Your task to perform on an android device: Open Youtube and go to "Your channel" Image 0: 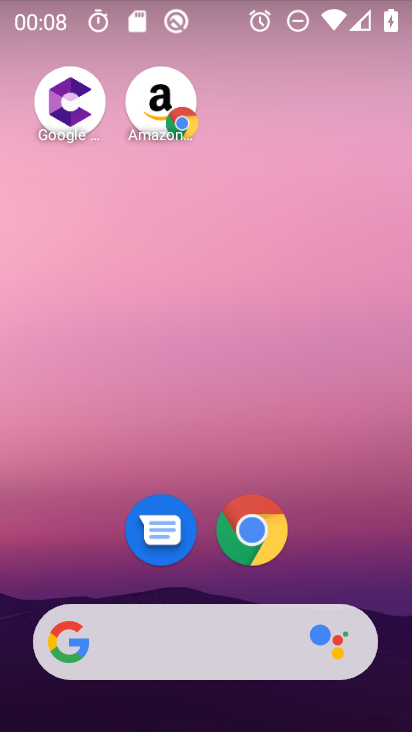
Step 0: drag from (300, 708) to (330, 152)
Your task to perform on an android device: Open Youtube and go to "Your channel" Image 1: 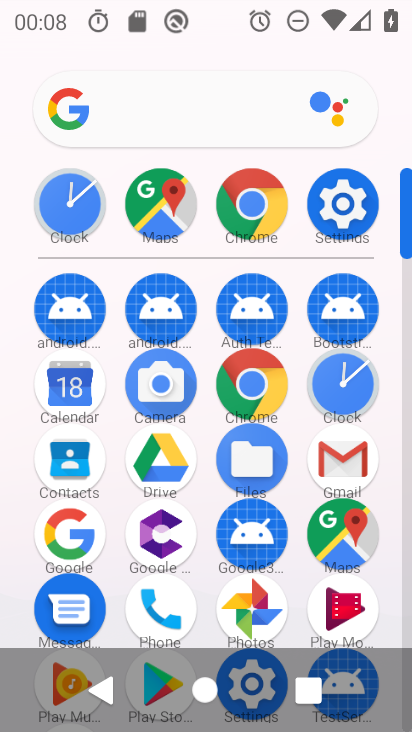
Step 1: drag from (285, 607) to (327, 141)
Your task to perform on an android device: Open Youtube and go to "Your channel" Image 2: 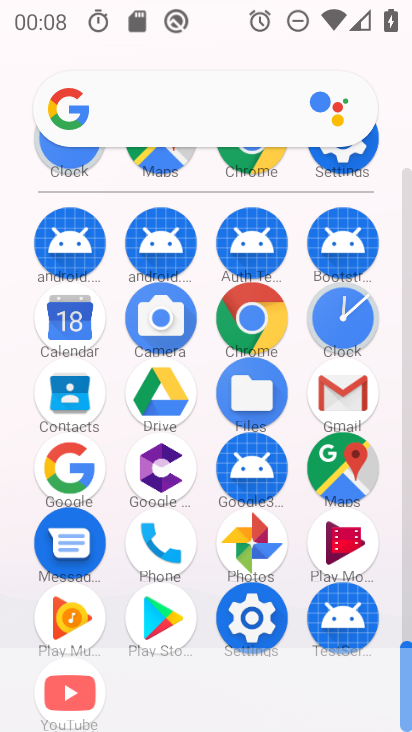
Step 2: click (76, 687)
Your task to perform on an android device: Open Youtube and go to "Your channel" Image 3: 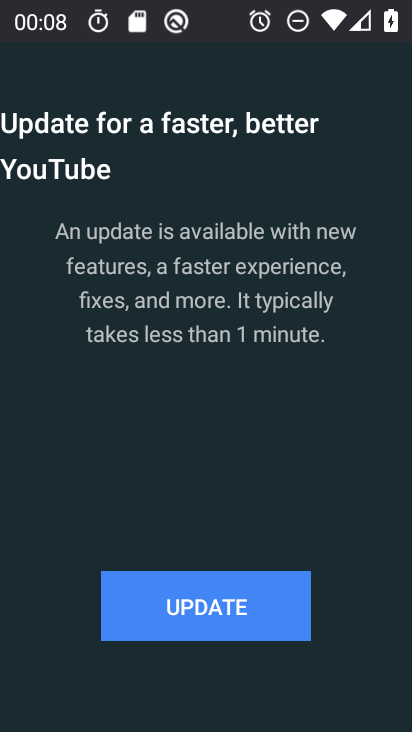
Step 3: click (202, 587)
Your task to perform on an android device: Open Youtube and go to "Your channel" Image 4: 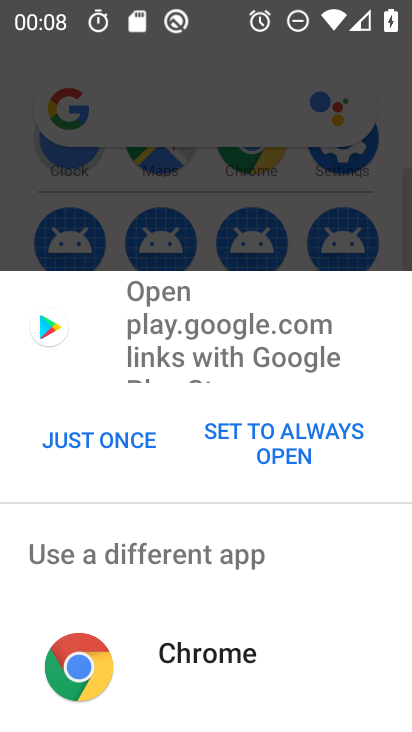
Step 4: click (125, 429)
Your task to perform on an android device: Open Youtube and go to "Your channel" Image 5: 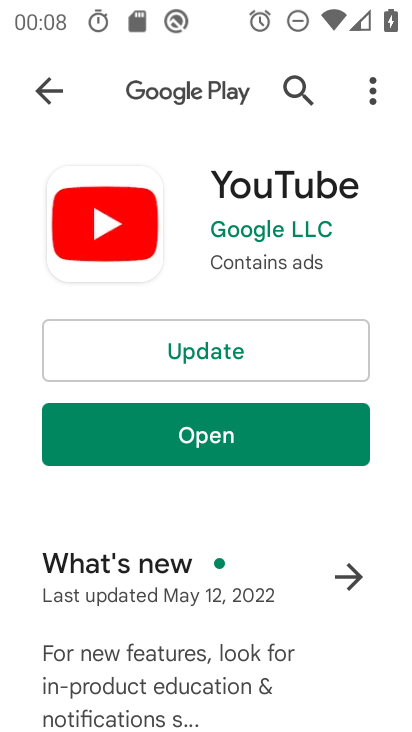
Step 5: click (246, 352)
Your task to perform on an android device: Open Youtube and go to "Your channel" Image 6: 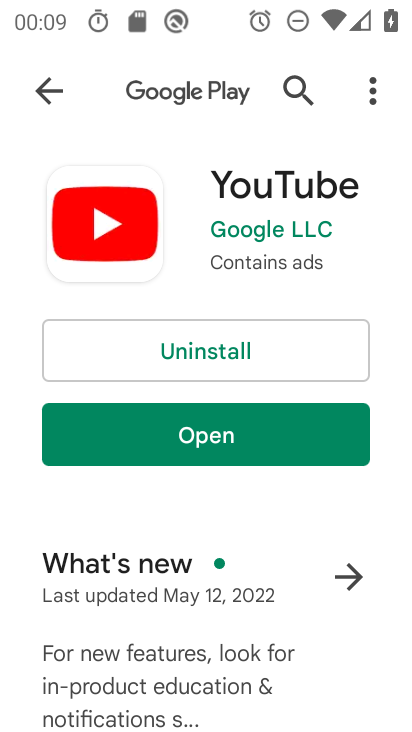
Step 6: click (218, 438)
Your task to perform on an android device: Open Youtube and go to "Your channel" Image 7: 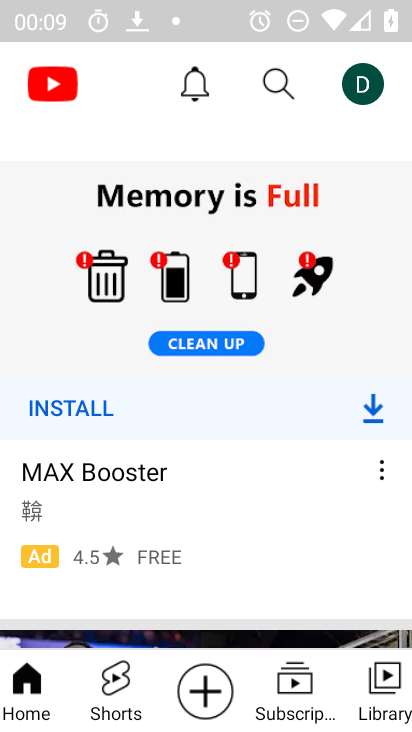
Step 7: click (378, 74)
Your task to perform on an android device: Open Youtube and go to "Your channel" Image 8: 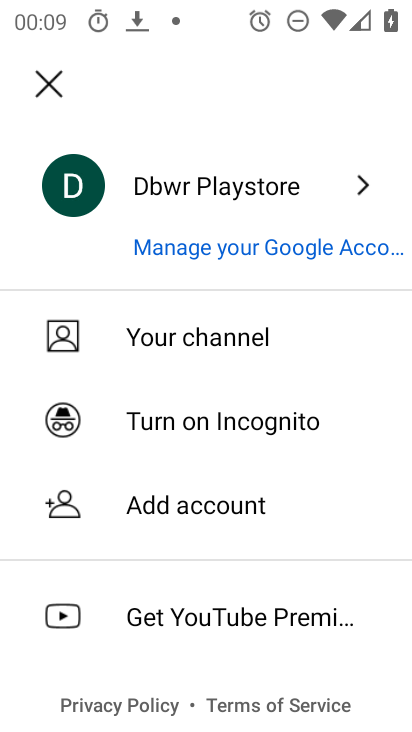
Step 8: click (276, 335)
Your task to perform on an android device: Open Youtube and go to "Your channel" Image 9: 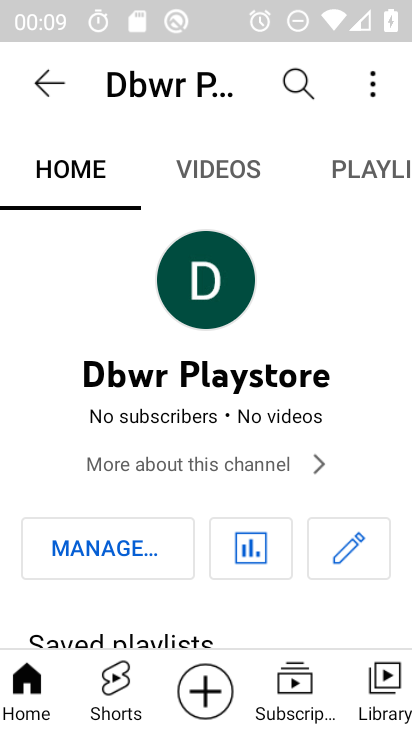
Step 9: task complete